Your task to perform on an android device: Open Google Image 0: 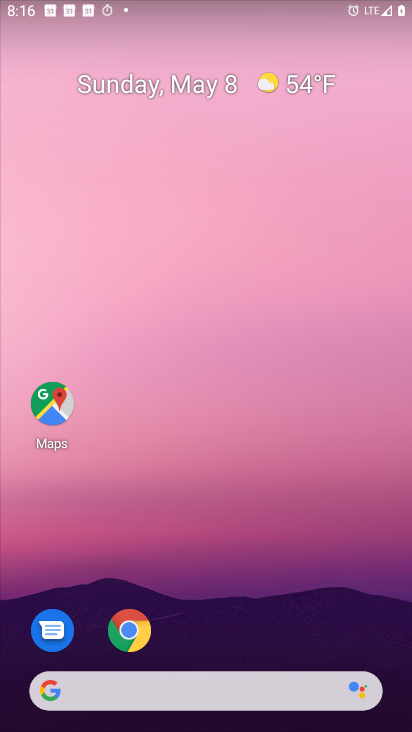
Step 0: click (212, 700)
Your task to perform on an android device: Open Google Image 1: 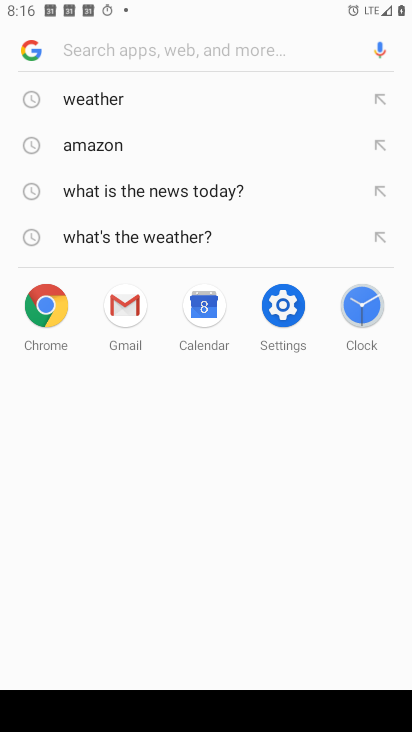
Step 1: task complete